Your task to perform on an android device: open a bookmark in the chrome app Image 0: 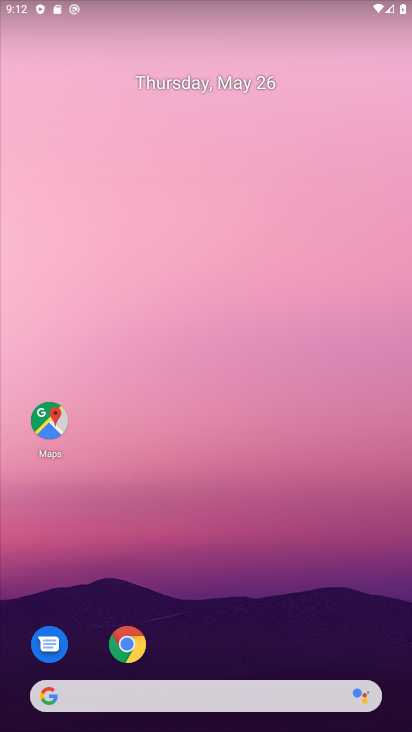
Step 0: click (130, 640)
Your task to perform on an android device: open a bookmark in the chrome app Image 1: 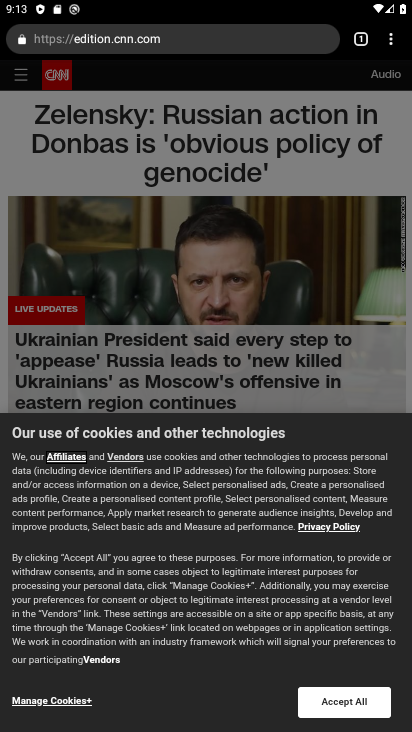
Step 1: click (394, 42)
Your task to perform on an android device: open a bookmark in the chrome app Image 2: 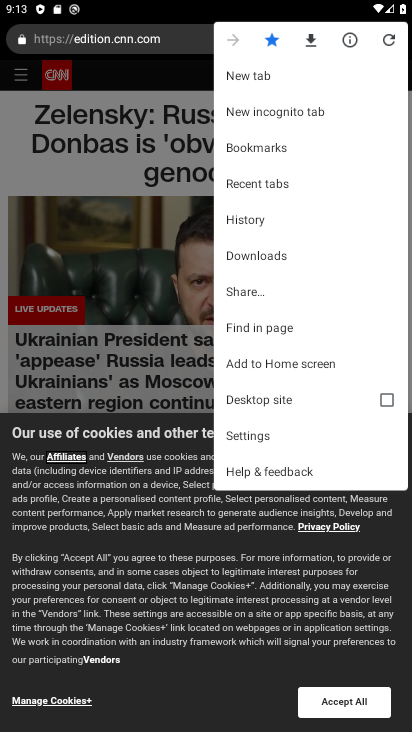
Step 2: click (276, 143)
Your task to perform on an android device: open a bookmark in the chrome app Image 3: 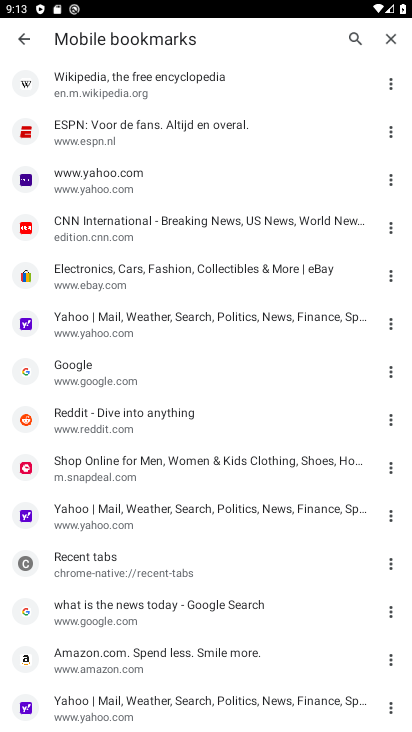
Step 3: task complete